Your task to perform on an android device: Open Reddit.com Image 0: 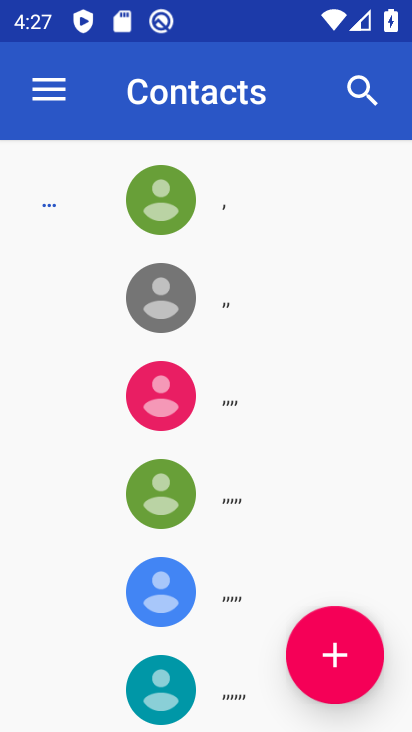
Step 0: press home button
Your task to perform on an android device: Open Reddit.com Image 1: 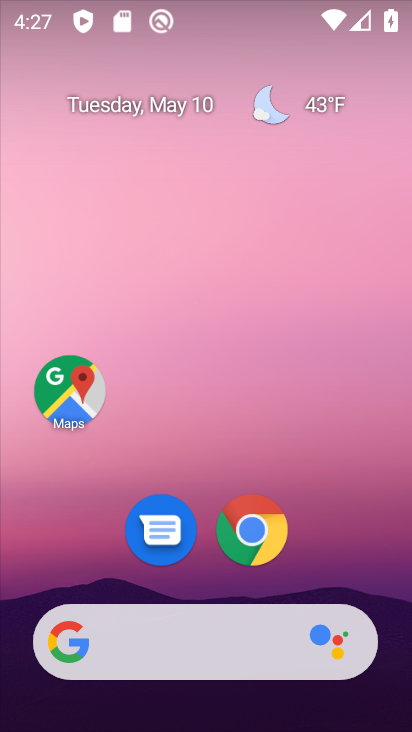
Step 1: click (254, 547)
Your task to perform on an android device: Open Reddit.com Image 2: 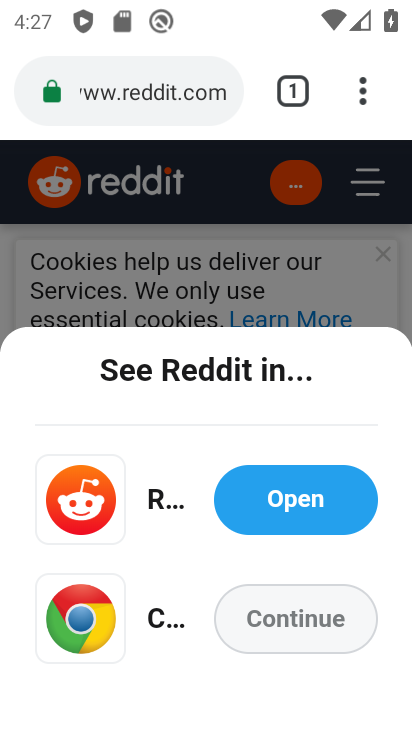
Step 2: task complete